Your task to perform on an android device: Show me productivity apps on the Play Store Image 0: 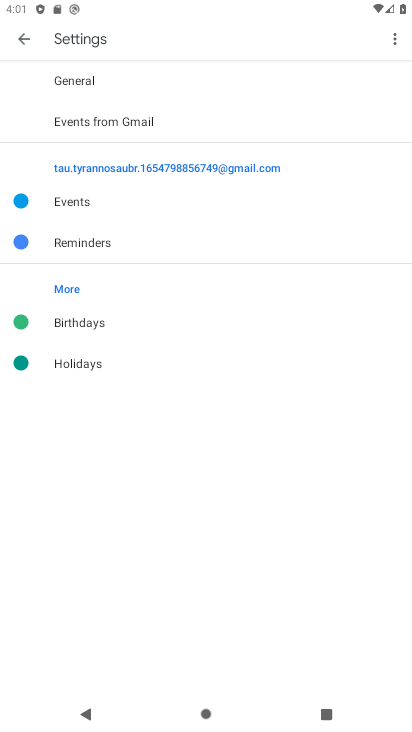
Step 0: press home button
Your task to perform on an android device: Show me productivity apps on the Play Store Image 1: 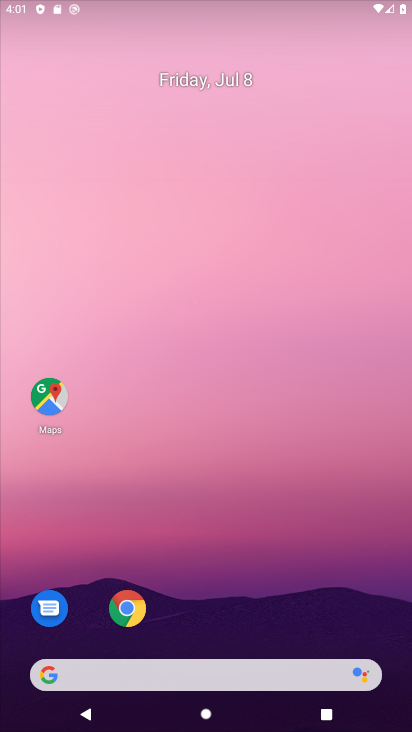
Step 1: drag from (252, 616) to (295, 45)
Your task to perform on an android device: Show me productivity apps on the Play Store Image 2: 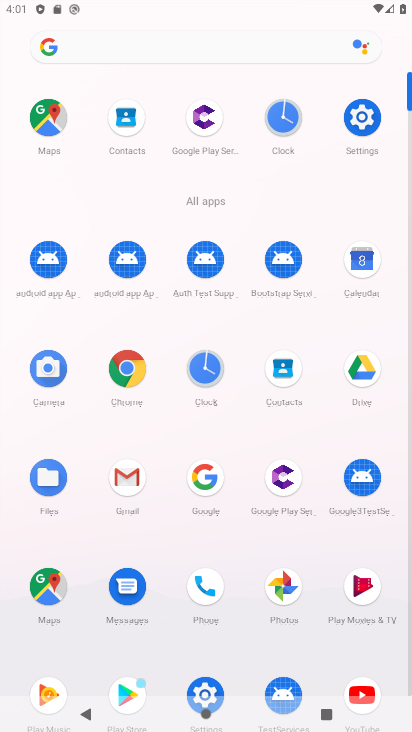
Step 2: click (123, 692)
Your task to perform on an android device: Show me productivity apps on the Play Store Image 3: 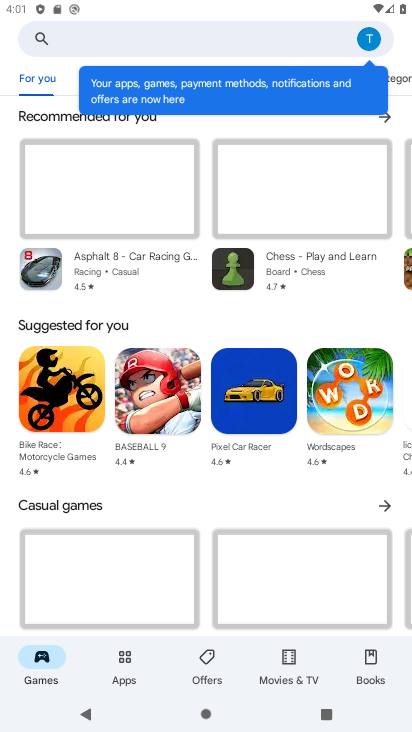
Step 3: click (123, 658)
Your task to perform on an android device: Show me productivity apps on the Play Store Image 4: 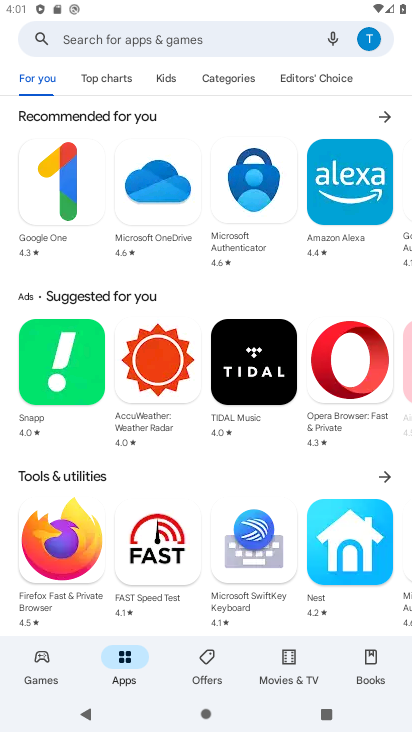
Step 4: click (223, 76)
Your task to perform on an android device: Show me productivity apps on the Play Store Image 5: 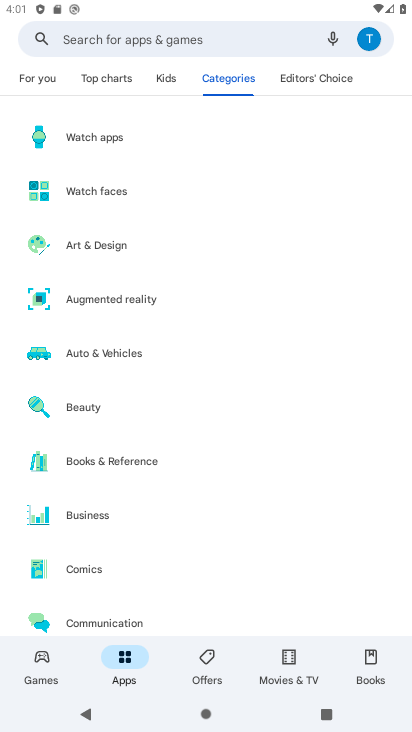
Step 5: drag from (217, 599) to (318, 3)
Your task to perform on an android device: Show me productivity apps on the Play Store Image 6: 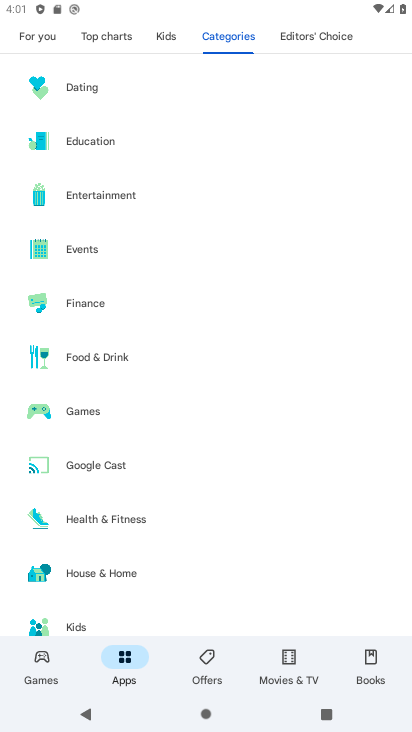
Step 6: drag from (178, 615) to (355, 22)
Your task to perform on an android device: Show me productivity apps on the Play Store Image 7: 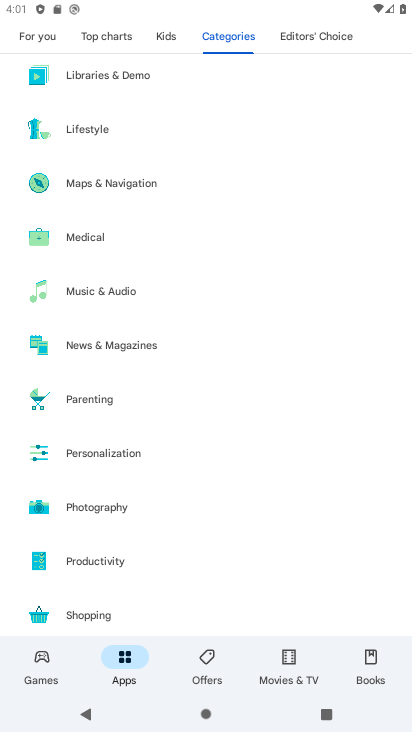
Step 7: click (73, 556)
Your task to perform on an android device: Show me productivity apps on the Play Store Image 8: 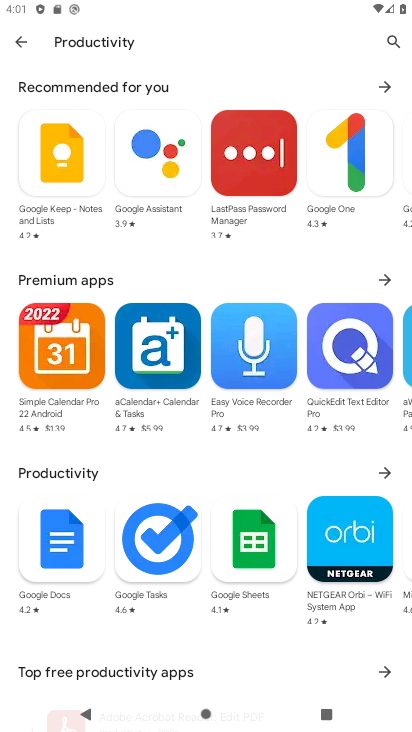
Step 8: task complete